Your task to perform on an android device: visit the assistant section in the google photos Image 0: 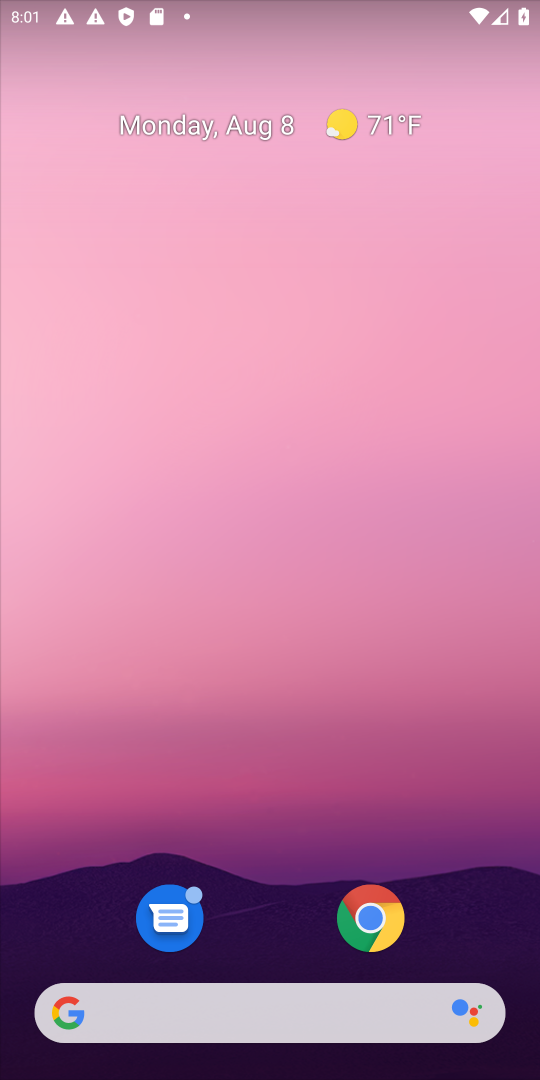
Step 0: drag from (508, 687) to (430, 277)
Your task to perform on an android device: visit the assistant section in the google photos Image 1: 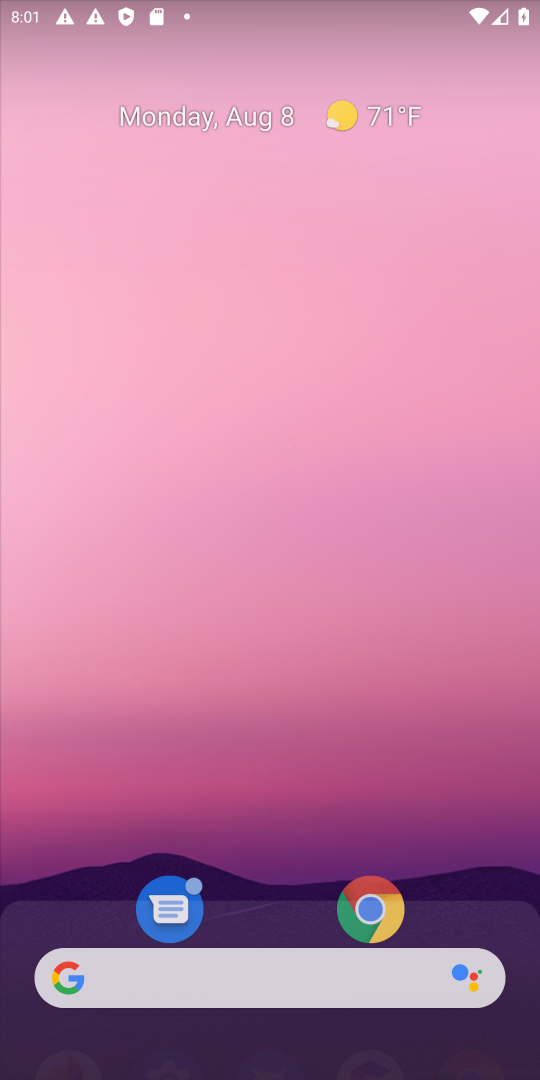
Step 1: drag from (507, 1036) to (468, 221)
Your task to perform on an android device: visit the assistant section in the google photos Image 2: 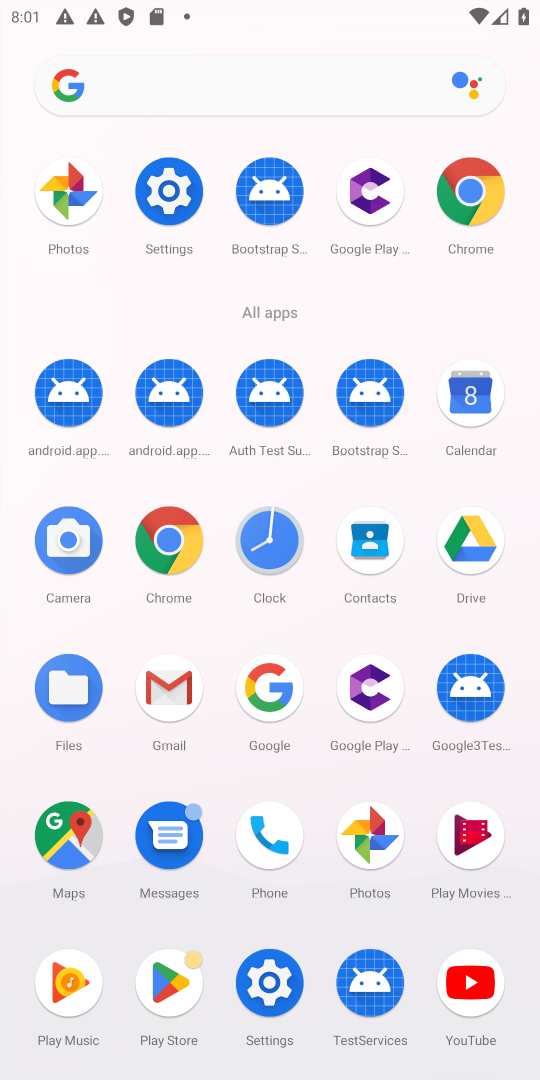
Step 2: click (377, 840)
Your task to perform on an android device: visit the assistant section in the google photos Image 3: 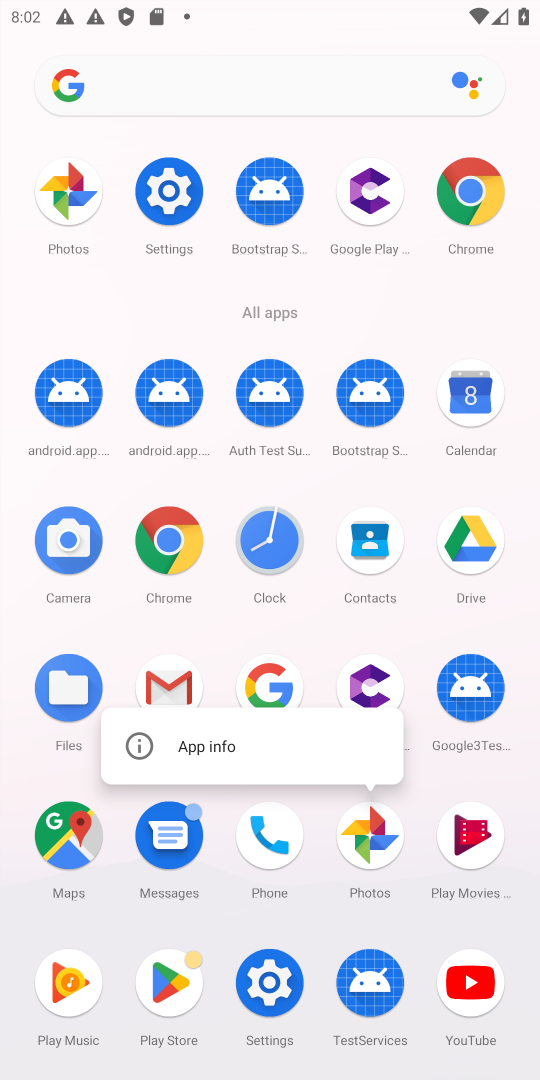
Step 3: click (366, 836)
Your task to perform on an android device: visit the assistant section in the google photos Image 4: 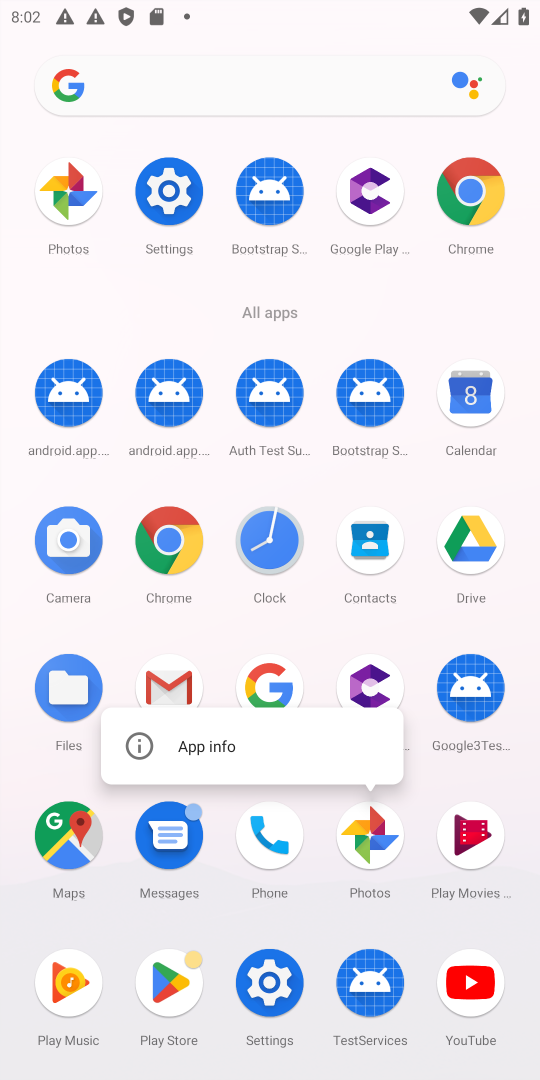
Step 4: click (366, 836)
Your task to perform on an android device: visit the assistant section in the google photos Image 5: 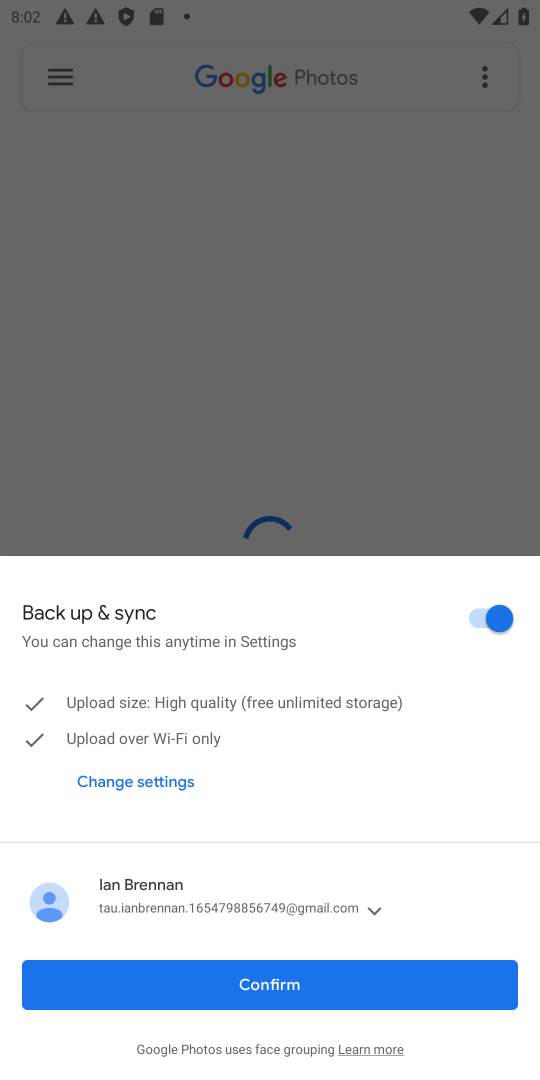
Step 5: click (374, 972)
Your task to perform on an android device: visit the assistant section in the google photos Image 6: 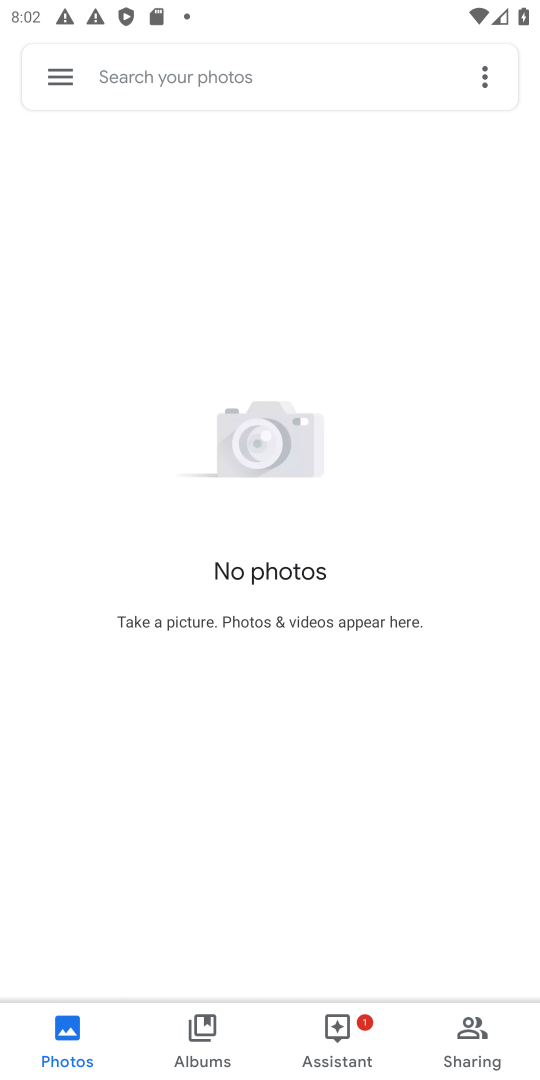
Step 6: click (313, 1023)
Your task to perform on an android device: visit the assistant section in the google photos Image 7: 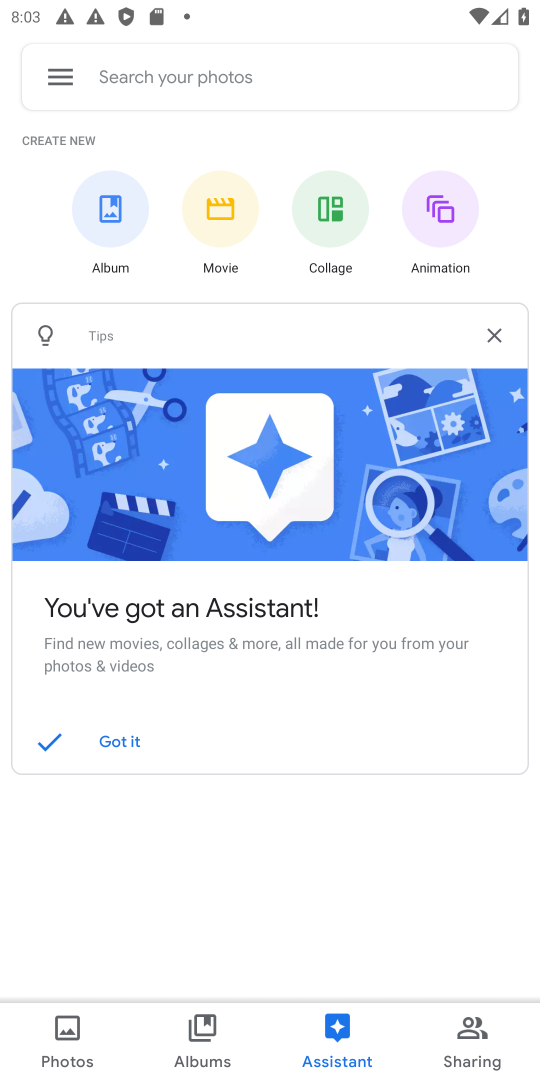
Step 7: click (326, 211)
Your task to perform on an android device: visit the assistant section in the google photos Image 8: 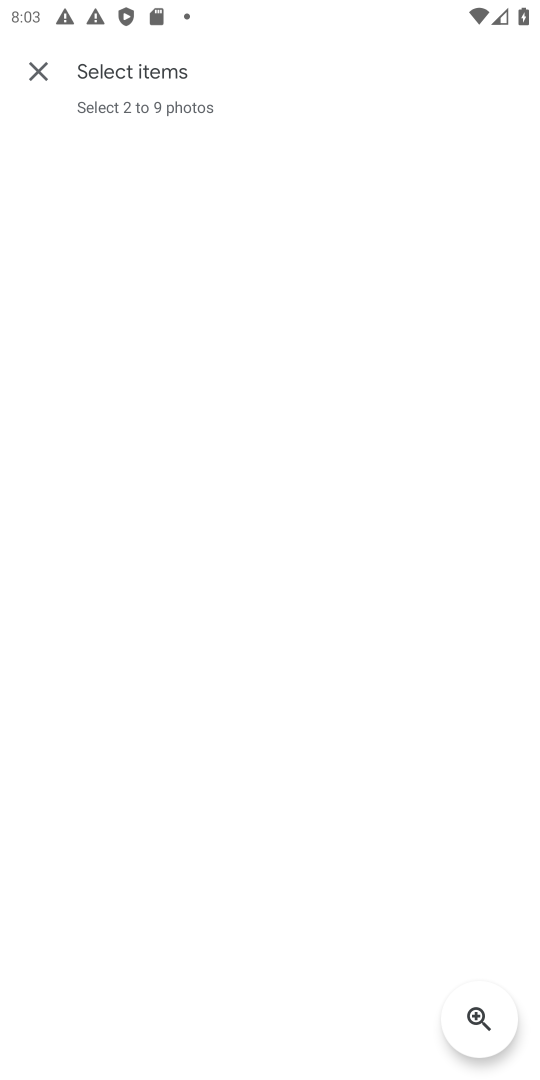
Step 8: task complete